Your task to perform on an android device: Open Reddit.com Image 0: 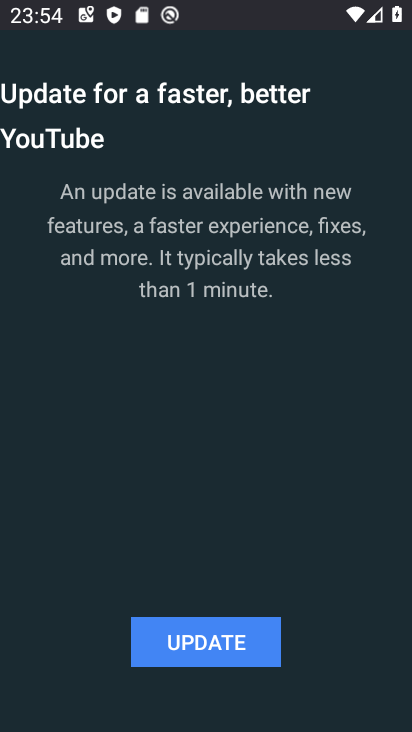
Step 0: press back button
Your task to perform on an android device: Open Reddit.com Image 1: 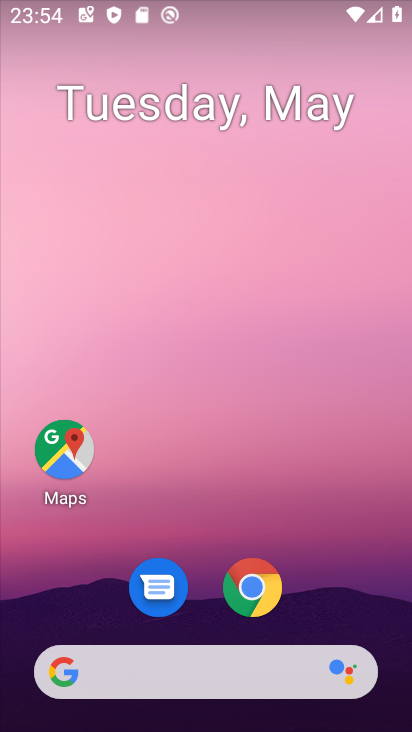
Step 1: click (250, 584)
Your task to perform on an android device: Open Reddit.com Image 2: 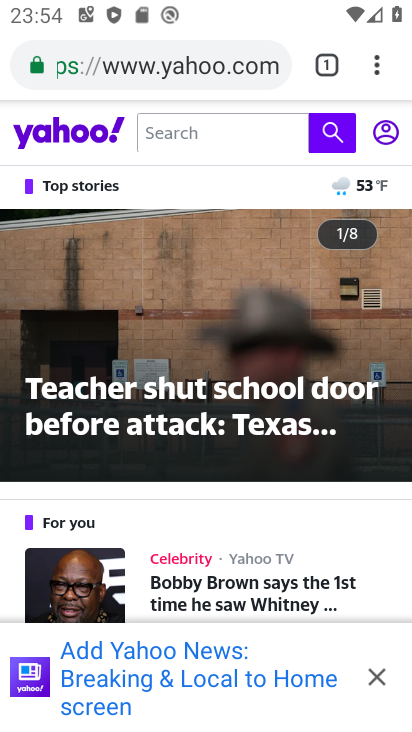
Step 2: click (146, 74)
Your task to perform on an android device: Open Reddit.com Image 3: 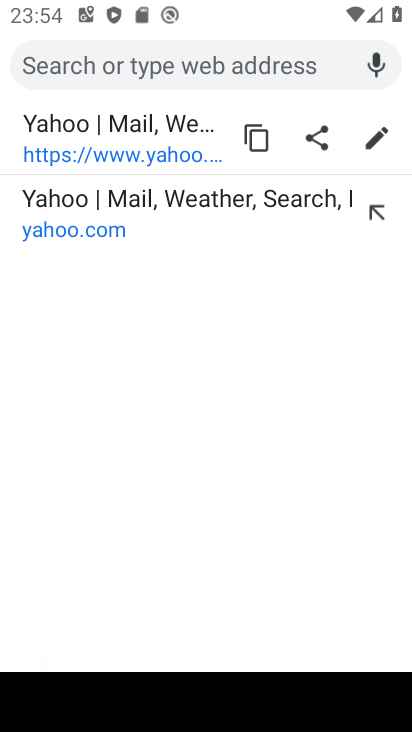
Step 3: type "Reddit.com"
Your task to perform on an android device: Open Reddit.com Image 4: 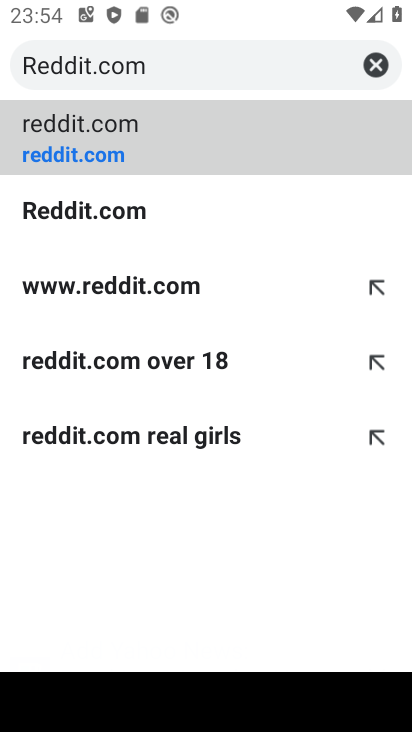
Step 4: click (61, 125)
Your task to perform on an android device: Open Reddit.com Image 5: 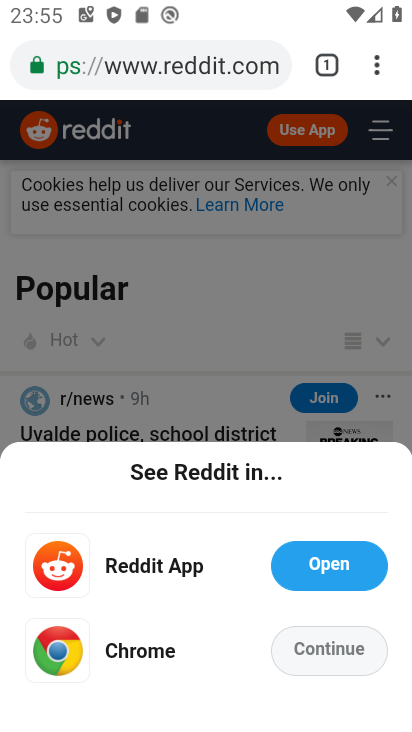
Step 5: task complete